Your task to perform on an android device: see sites visited before in the chrome app Image 0: 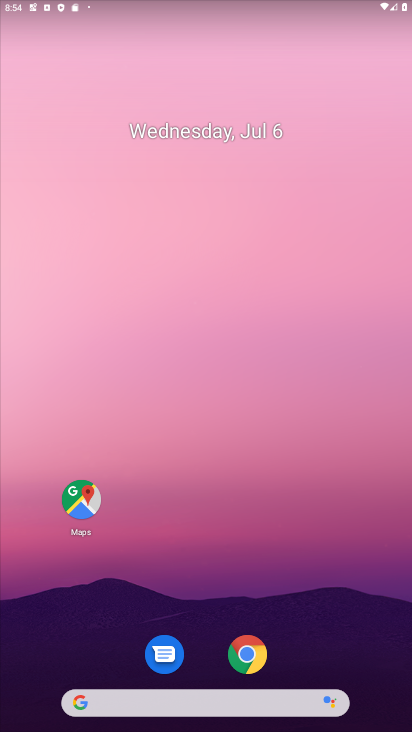
Step 0: click (256, 645)
Your task to perform on an android device: see sites visited before in the chrome app Image 1: 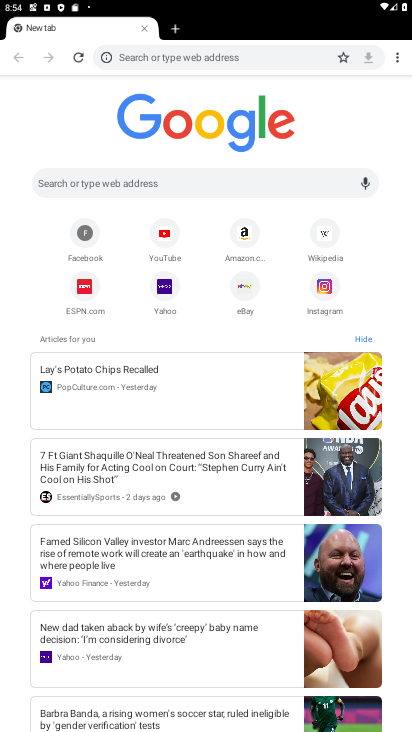
Step 1: click (397, 61)
Your task to perform on an android device: see sites visited before in the chrome app Image 2: 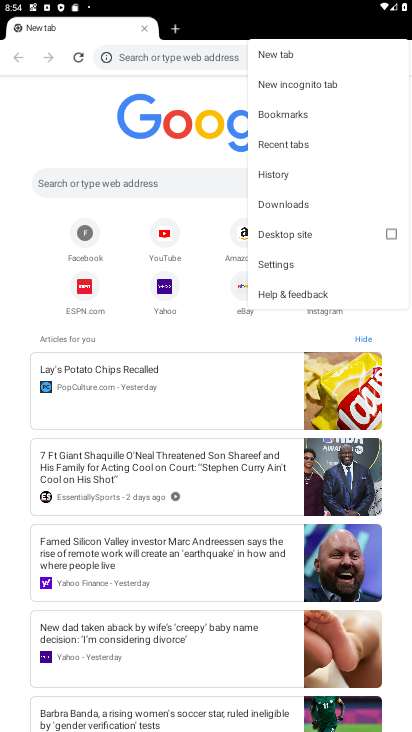
Step 2: click (291, 253)
Your task to perform on an android device: see sites visited before in the chrome app Image 3: 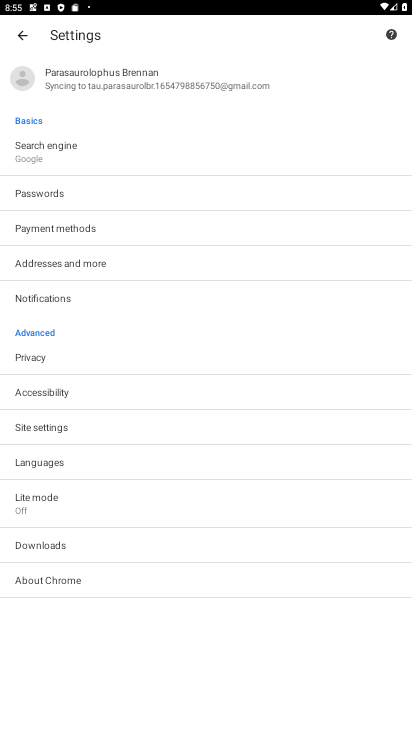
Step 3: click (20, 37)
Your task to perform on an android device: see sites visited before in the chrome app Image 4: 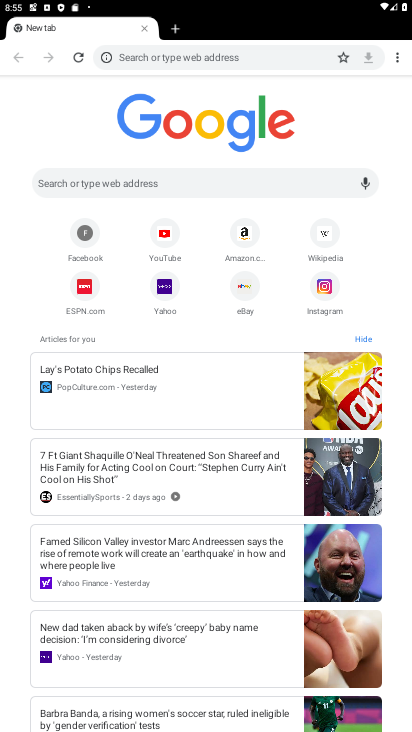
Step 4: click (391, 60)
Your task to perform on an android device: see sites visited before in the chrome app Image 5: 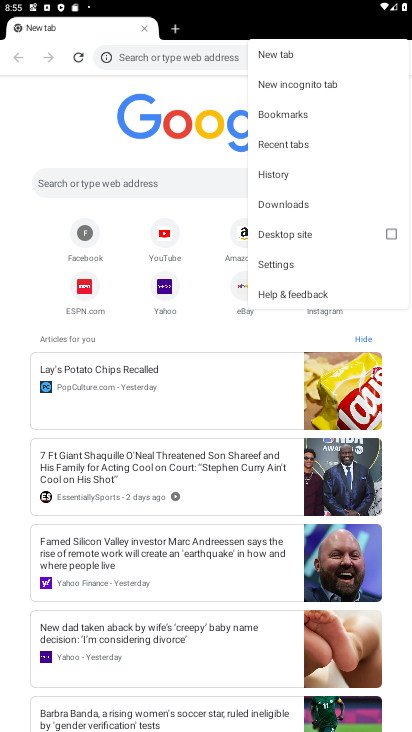
Step 5: click (290, 169)
Your task to perform on an android device: see sites visited before in the chrome app Image 6: 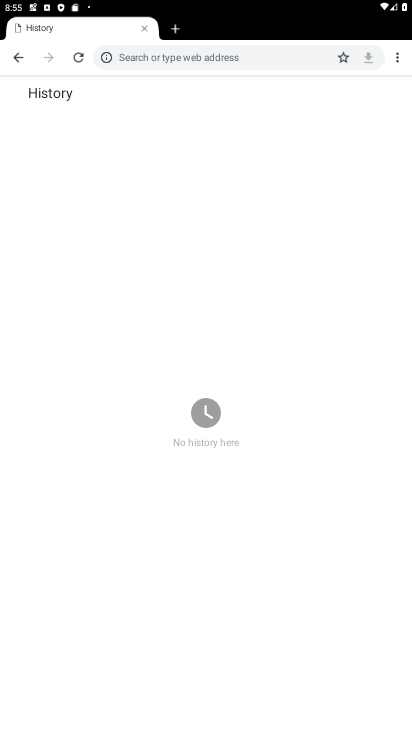
Step 6: task complete